Your task to perform on an android device: Go to wifi settings Image 0: 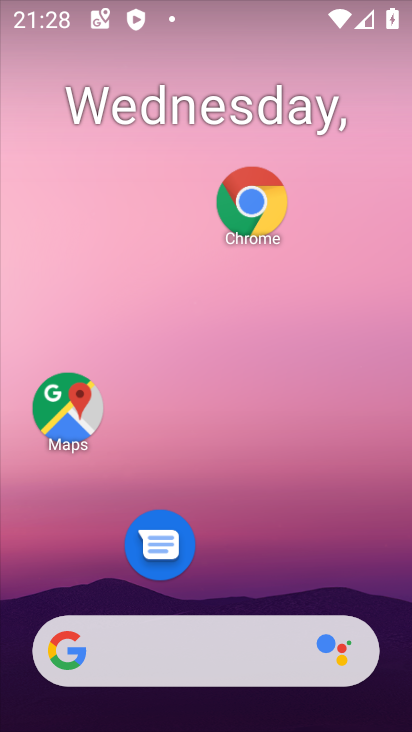
Step 0: drag from (227, 8) to (85, 414)
Your task to perform on an android device: Go to wifi settings Image 1: 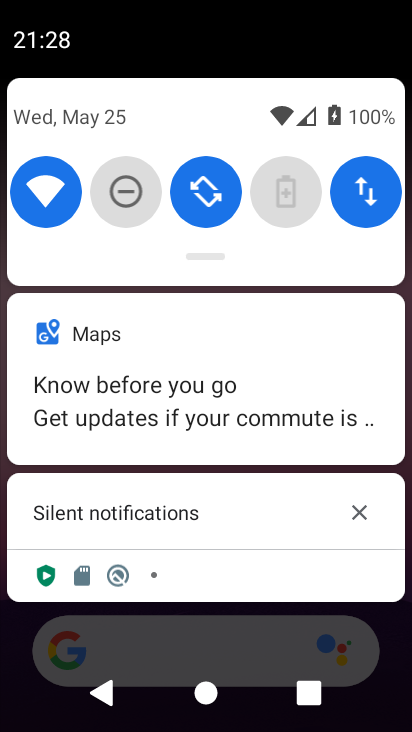
Step 1: click (41, 187)
Your task to perform on an android device: Go to wifi settings Image 2: 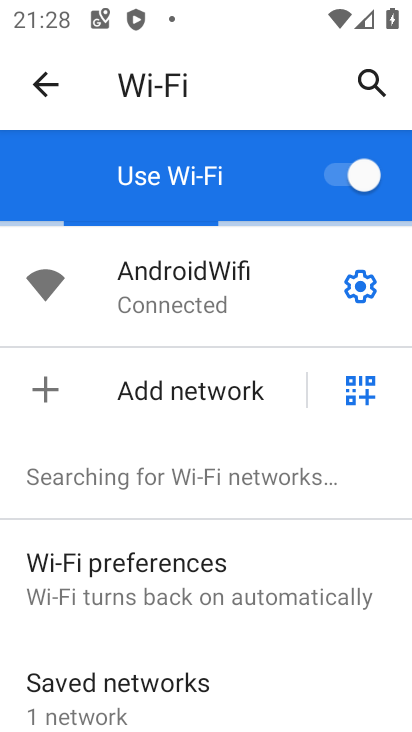
Step 2: task complete